Your task to perform on an android device: Open Chrome and go to settings Image 0: 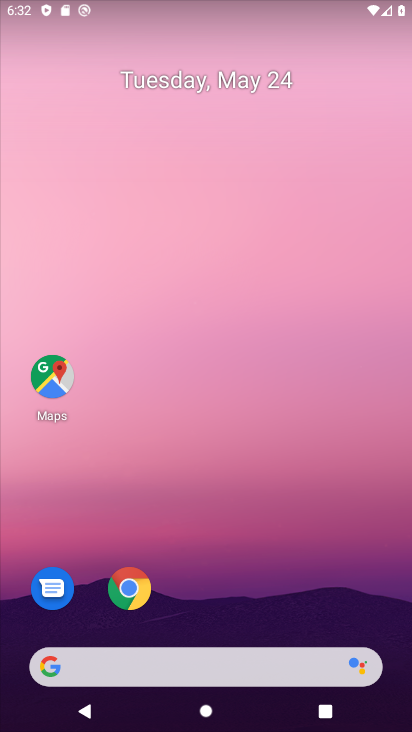
Step 0: drag from (297, 632) to (381, 8)
Your task to perform on an android device: Open Chrome and go to settings Image 1: 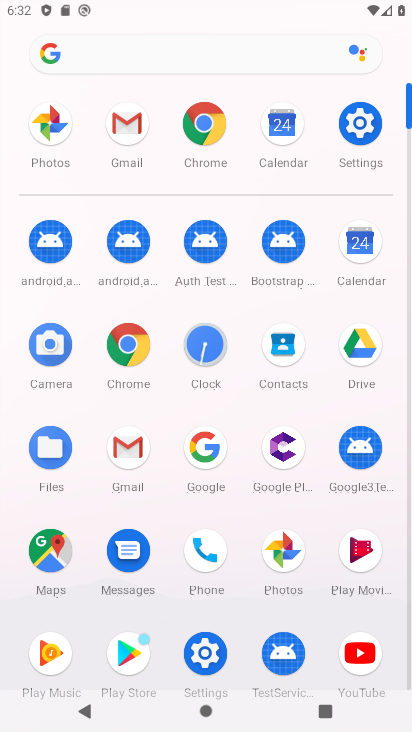
Step 1: click (122, 329)
Your task to perform on an android device: Open Chrome and go to settings Image 2: 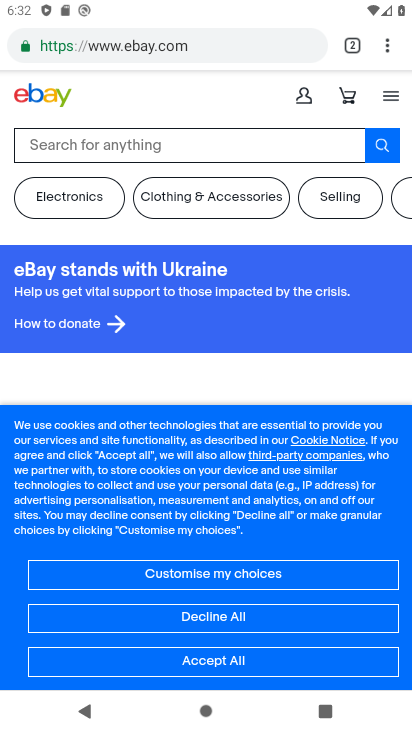
Step 2: task complete